Your task to perform on an android device: Go to Reddit.com Image 0: 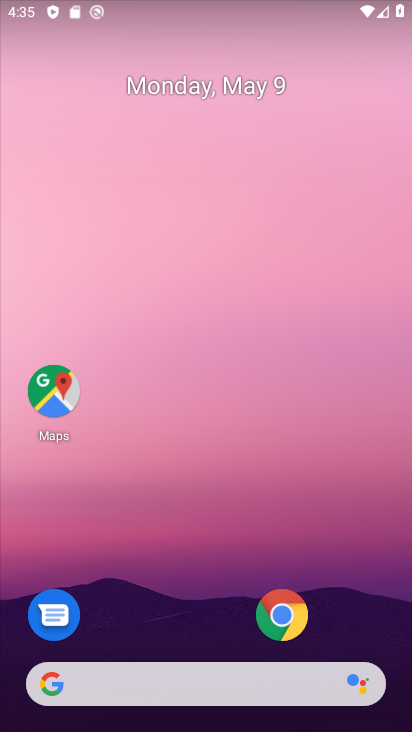
Step 0: drag from (150, 583) to (141, 209)
Your task to perform on an android device: Go to Reddit.com Image 1: 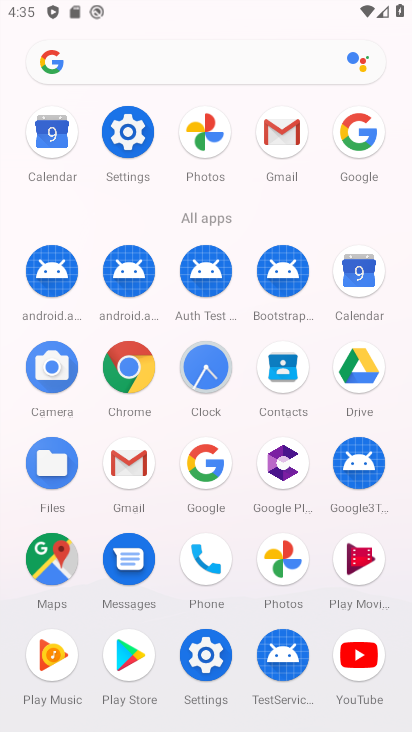
Step 1: click (193, 469)
Your task to perform on an android device: Go to Reddit.com Image 2: 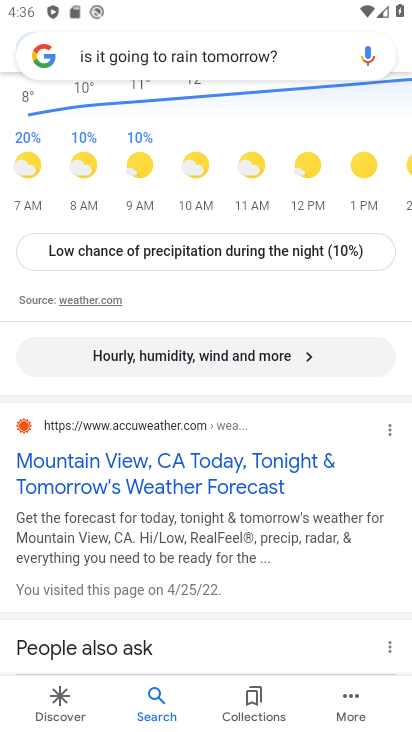
Step 2: drag from (276, 54) to (179, 54)
Your task to perform on an android device: Go to Reddit.com Image 3: 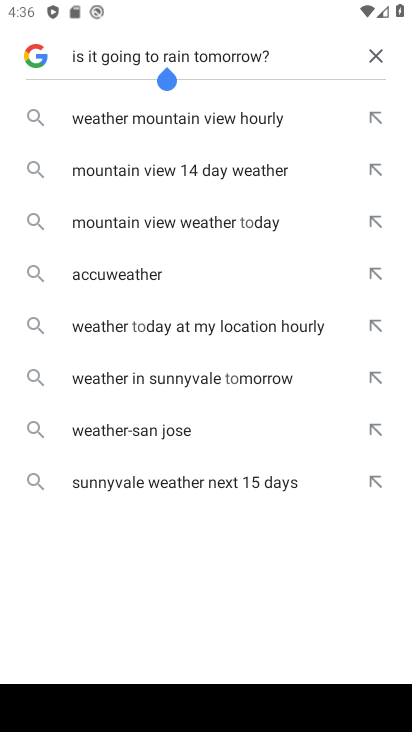
Step 3: click (380, 64)
Your task to perform on an android device: Go to Reddit.com Image 4: 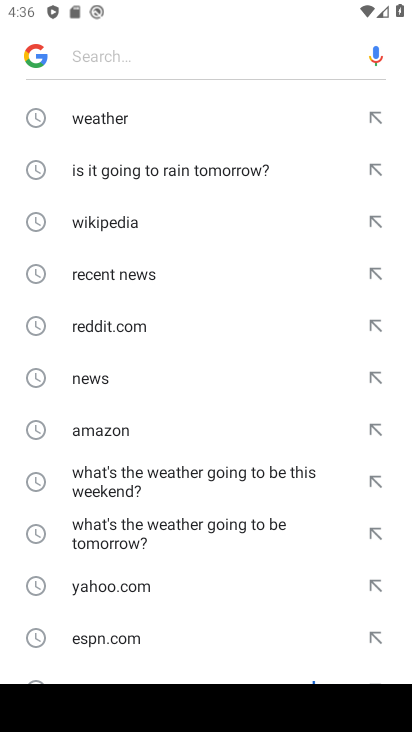
Step 4: click (114, 327)
Your task to perform on an android device: Go to Reddit.com Image 5: 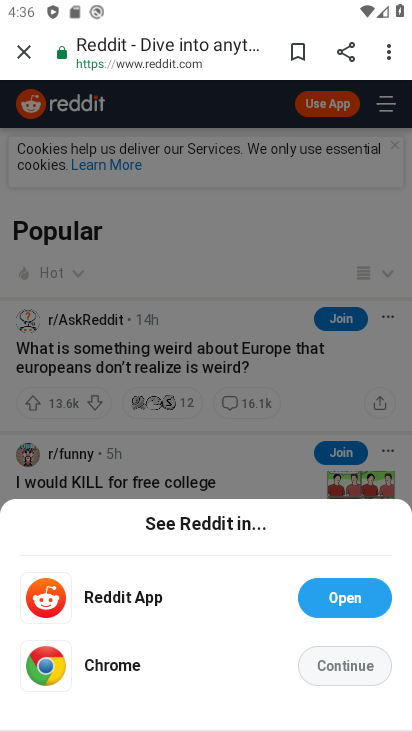
Step 5: click (123, 596)
Your task to perform on an android device: Go to Reddit.com Image 6: 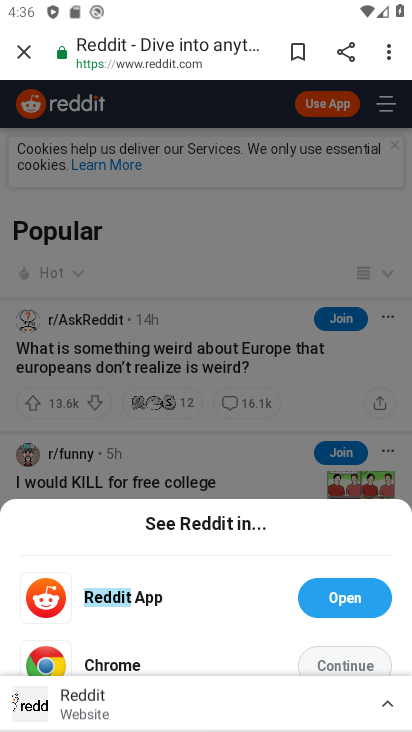
Step 6: click (149, 600)
Your task to perform on an android device: Go to Reddit.com Image 7: 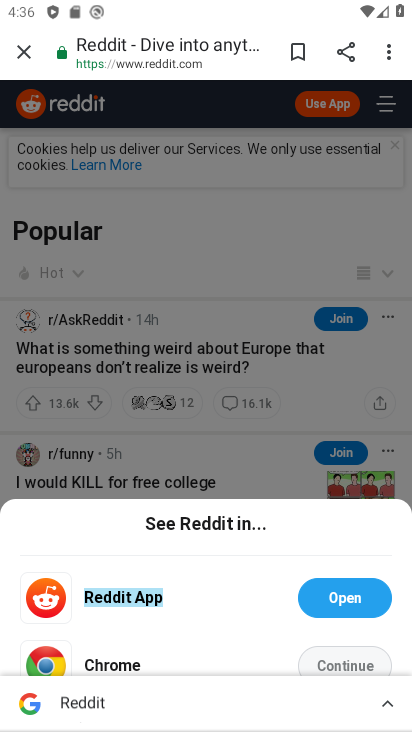
Step 7: click (198, 603)
Your task to perform on an android device: Go to Reddit.com Image 8: 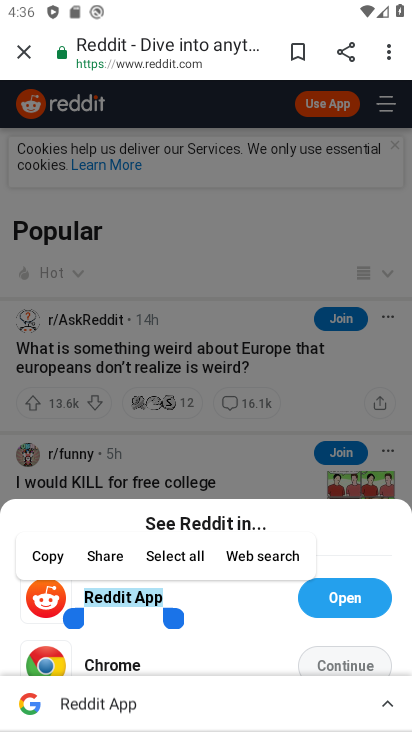
Step 8: click (257, 594)
Your task to perform on an android device: Go to Reddit.com Image 9: 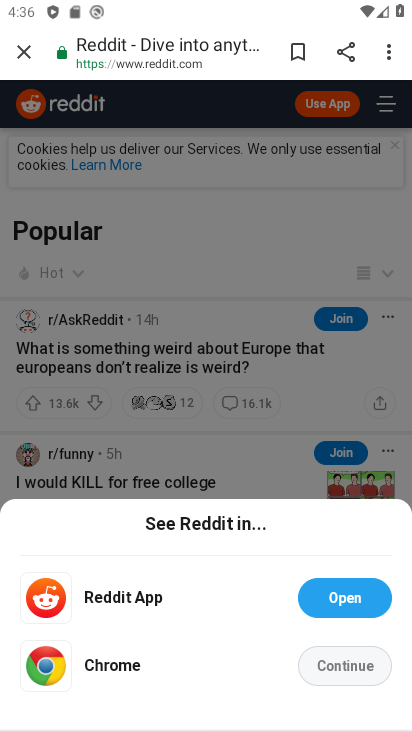
Step 9: click (343, 597)
Your task to perform on an android device: Go to Reddit.com Image 10: 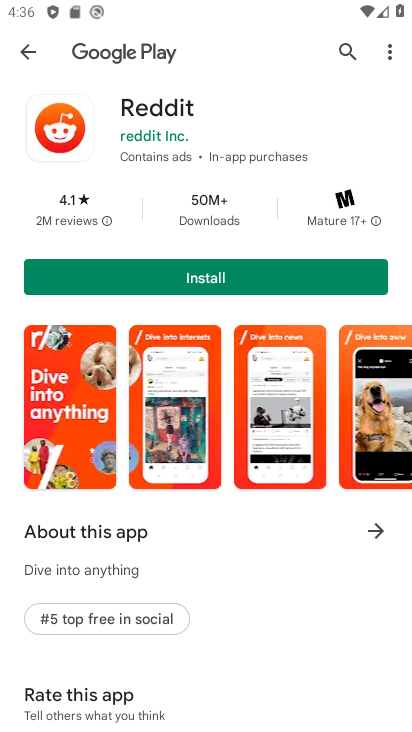
Step 10: task complete